Your task to perform on an android device: Open the map Image 0: 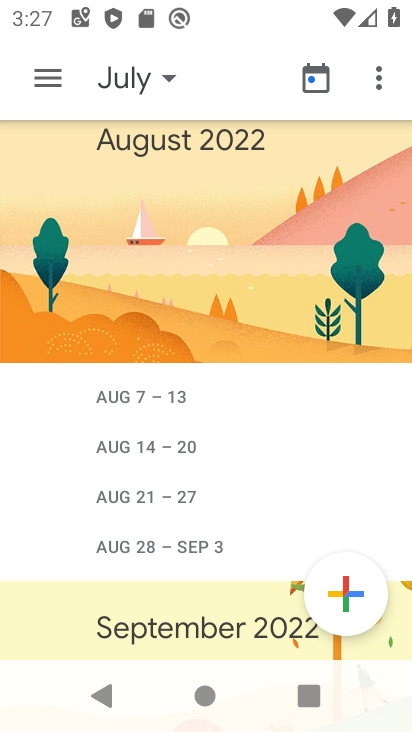
Step 0: press home button
Your task to perform on an android device: Open the map Image 1: 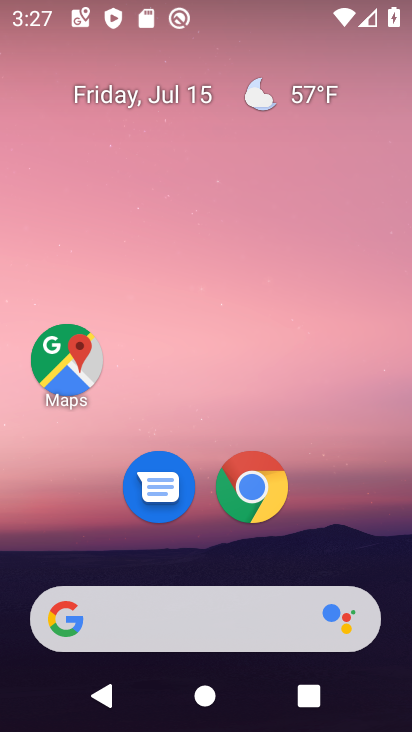
Step 1: drag from (200, 568) to (246, 225)
Your task to perform on an android device: Open the map Image 2: 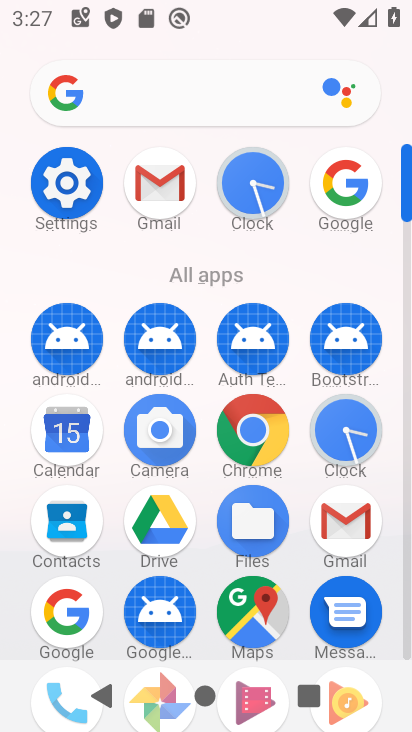
Step 2: click (253, 628)
Your task to perform on an android device: Open the map Image 3: 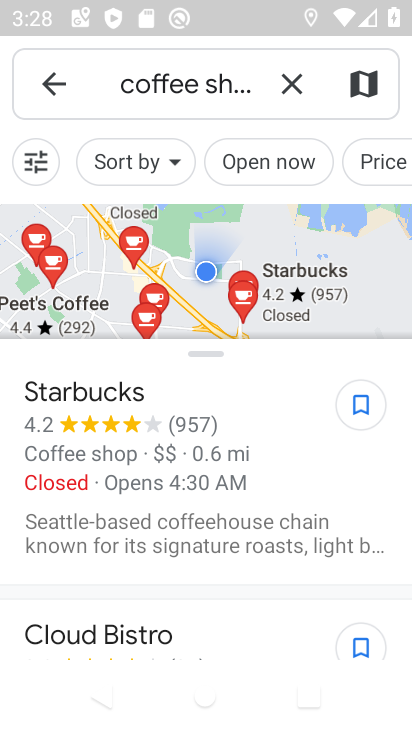
Step 3: task complete